Your task to perform on an android device: turn off javascript in the chrome app Image 0: 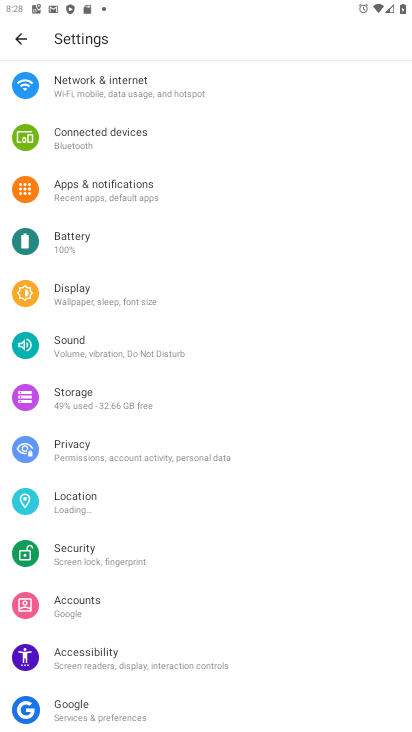
Step 0: press home button
Your task to perform on an android device: turn off javascript in the chrome app Image 1: 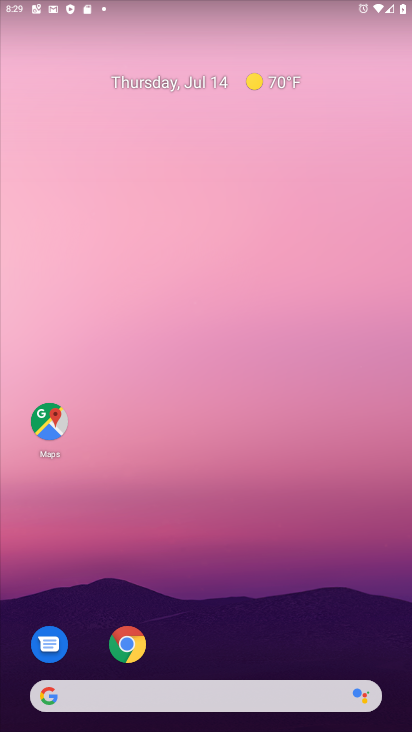
Step 1: drag from (251, 617) to (258, 194)
Your task to perform on an android device: turn off javascript in the chrome app Image 2: 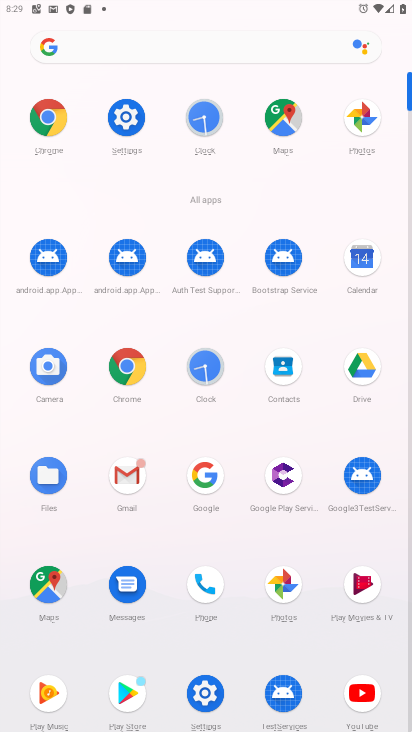
Step 2: click (40, 115)
Your task to perform on an android device: turn off javascript in the chrome app Image 3: 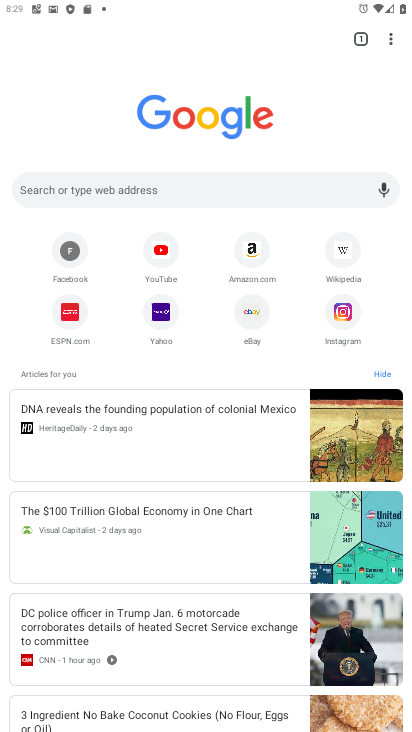
Step 3: click (402, 34)
Your task to perform on an android device: turn off javascript in the chrome app Image 4: 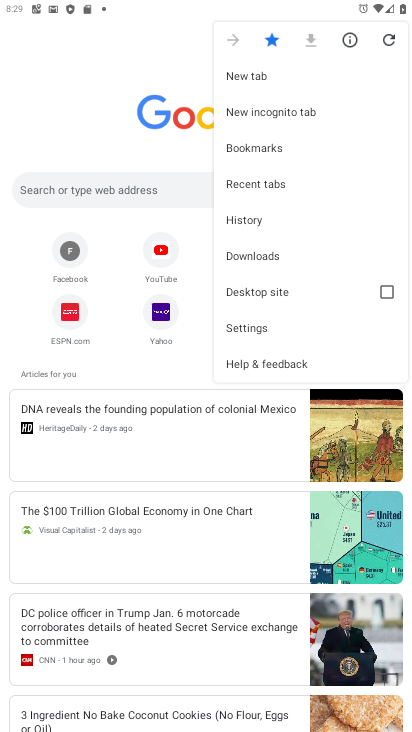
Step 4: click (274, 328)
Your task to perform on an android device: turn off javascript in the chrome app Image 5: 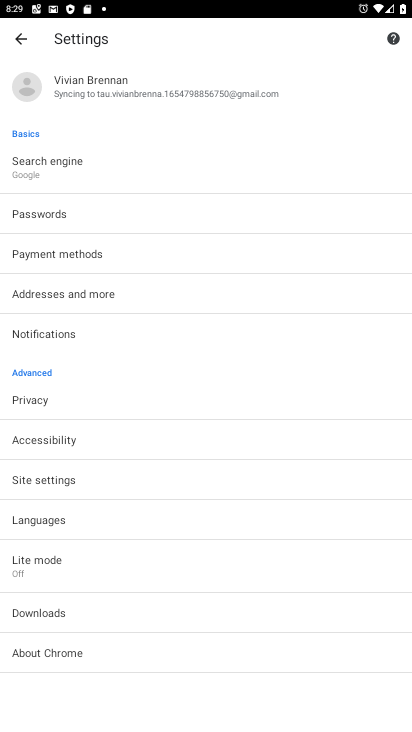
Step 5: click (68, 477)
Your task to perform on an android device: turn off javascript in the chrome app Image 6: 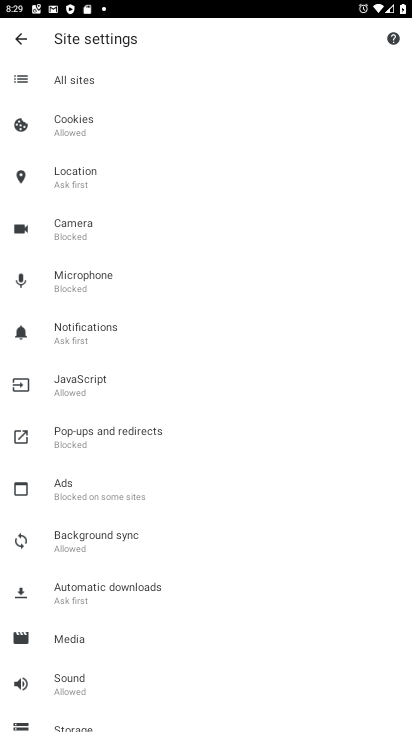
Step 6: click (94, 385)
Your task to perform on an android device: turn off javascript in the chrome app Image 7: 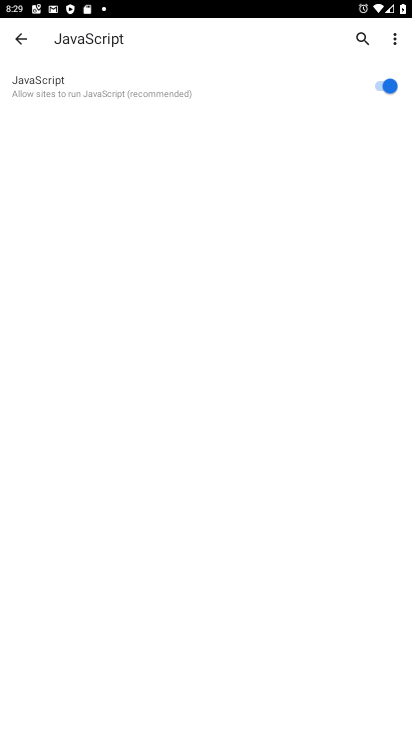
Step 7: click (375, 83)
Your task to perform on an android device: turn off javascript in the chrome app Image 8: 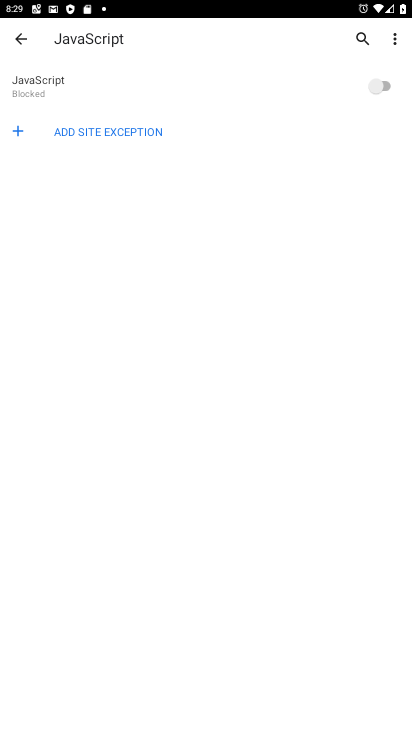
Step 8: task complete